Your task to perform on an android device: turn smart compose on in the gmail app Image 0: 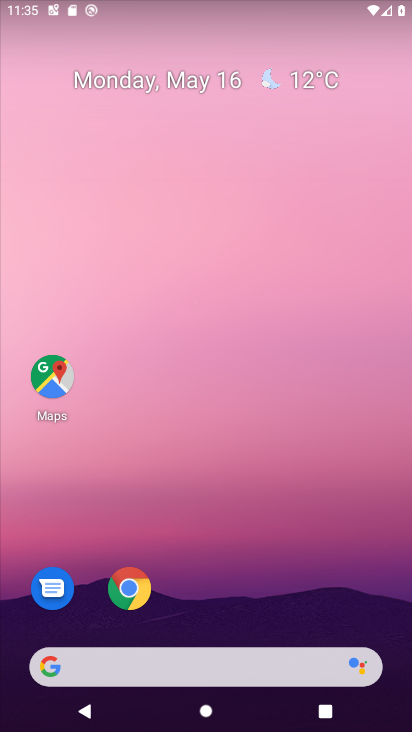
Step 0: drag from (227, 632) to (246, 98)
Your task to perform on an android device: turn smart compose on in the gmail app Image 1: 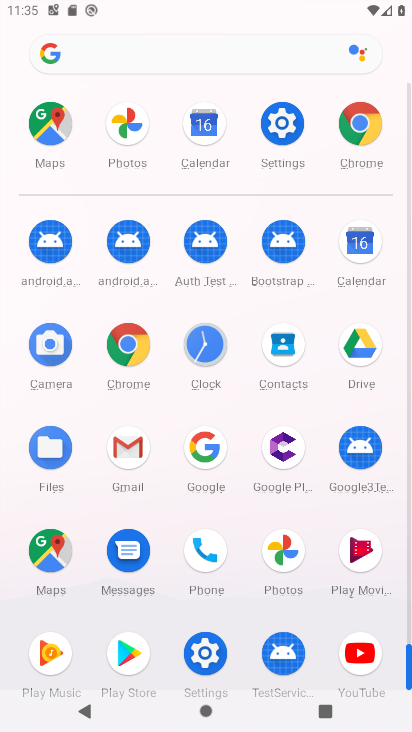
Step 1: click (126, 440)
Your task to perform on an android device: turn smart compose on in the gmail app Image 2: 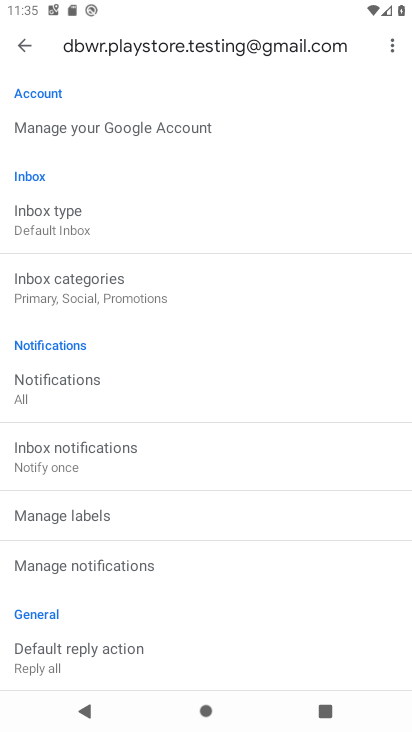
Step 2: task complete